Your task to perform on an android device: Go to internet settings Image 0: 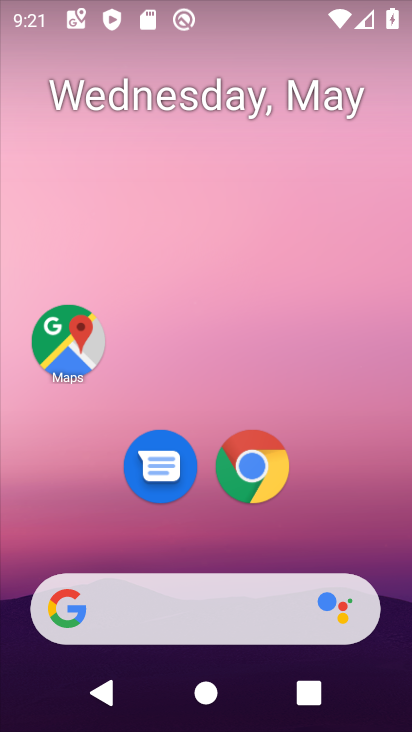
Step 0: drag from (254, 657) to (210, 19)
Your task to perform on an android device: Go to internet settings Image 1: 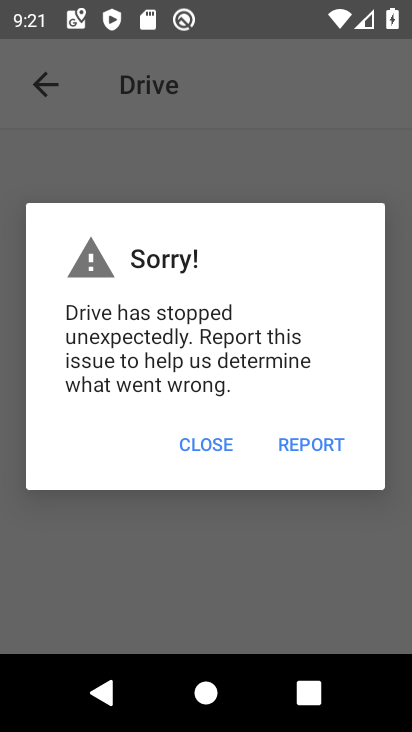
Step 1: click (208, 444)
Your task to perform on an android device: Go to internet settings Image 2: 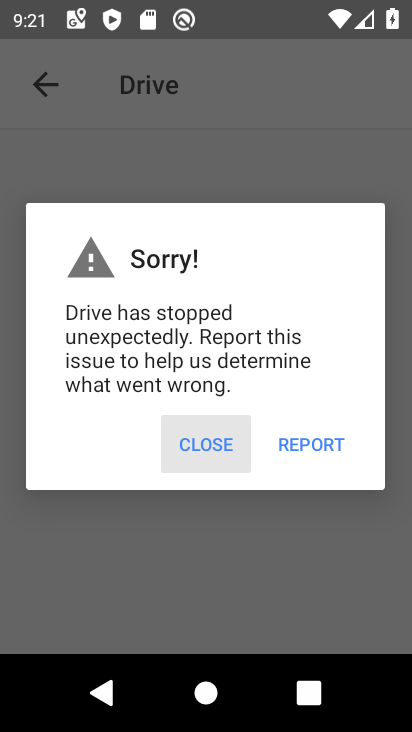
Step 2: click (208, 444)
Your task to perform on an android device: Go to internet settings Image 3: 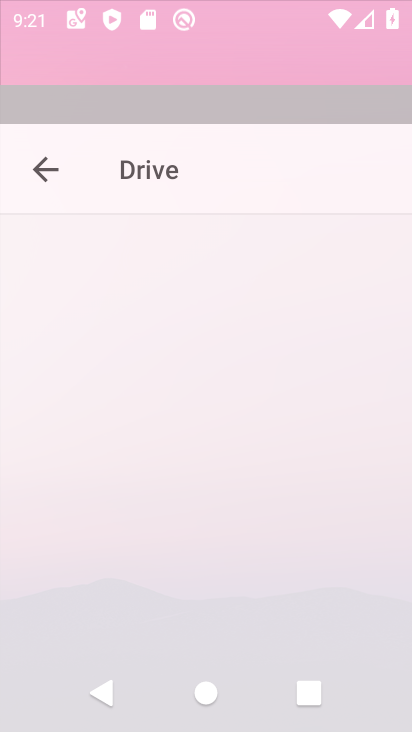
Step 3: click (208, 444)
Your task to perform on an android device: Go to internet settings Image 4: 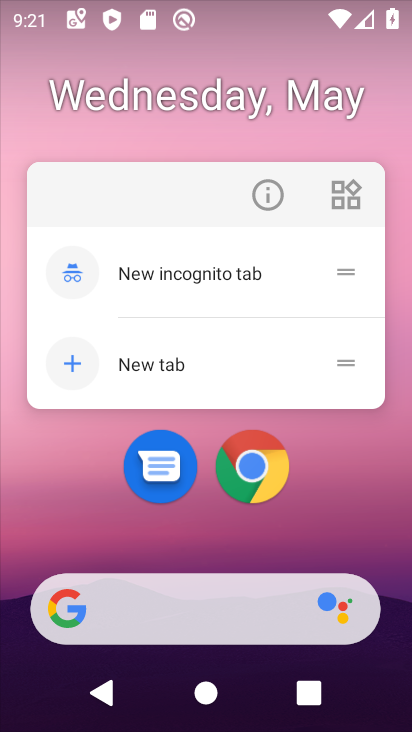
Step 4: drag from (220, 629) to (167, 45)
Your task to perform on an android device: Go to internet settings Image 5: 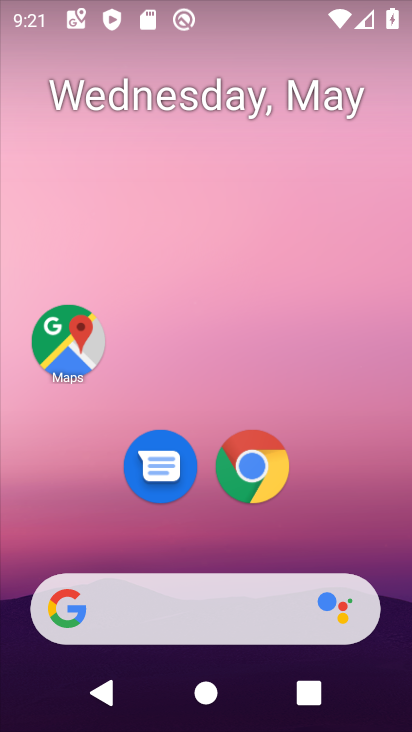
Step 5: drag from (234, 584) to (197, 155)
Your task to perform on an android device: Go to internet settings Image 6: 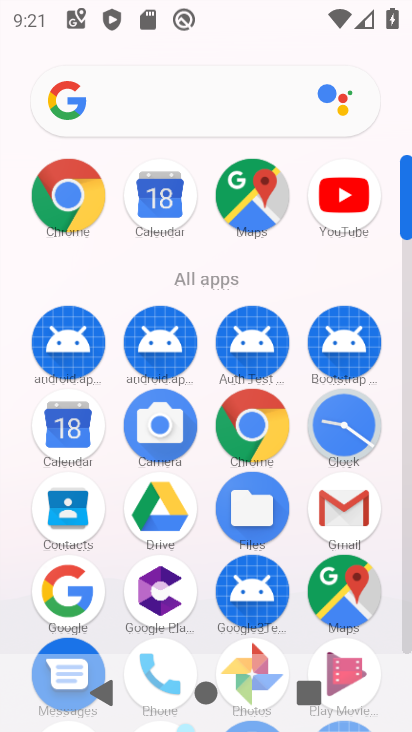
Step 6: drag from (223, 453) to (210, 134)
Your task to perform on an android device: Go to internet settings Image 7: 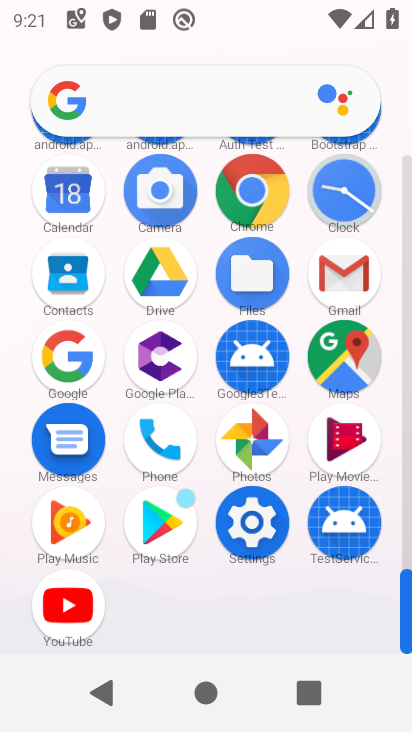
Step 7: drag from (211, 351) to (206, 59)
Your task to perform on an android device: Go to internet settings Image 8: 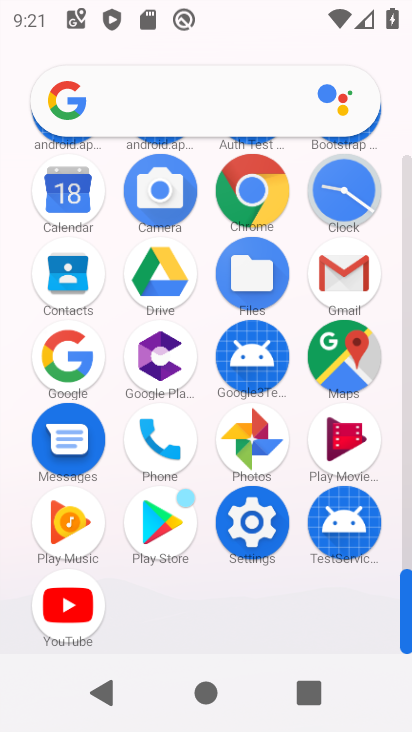
Step 8: drag from (184, 298) to (184, 102)
Your task to perform on an android device: Go to internet settings Image 9: 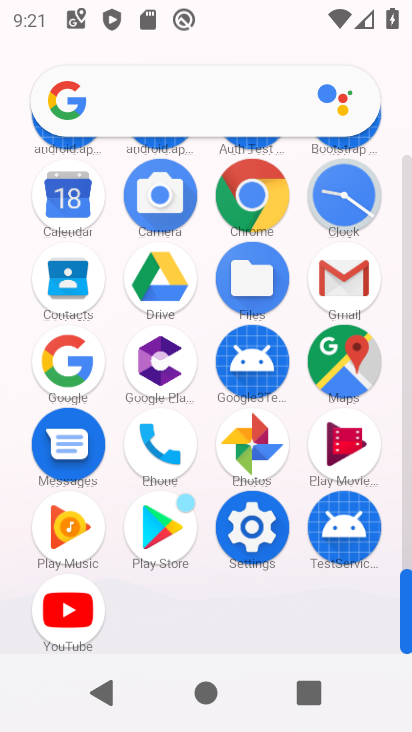
Step 9: click (246, 546)
Your task to perform on an android device: Go to internet settings Image 10: 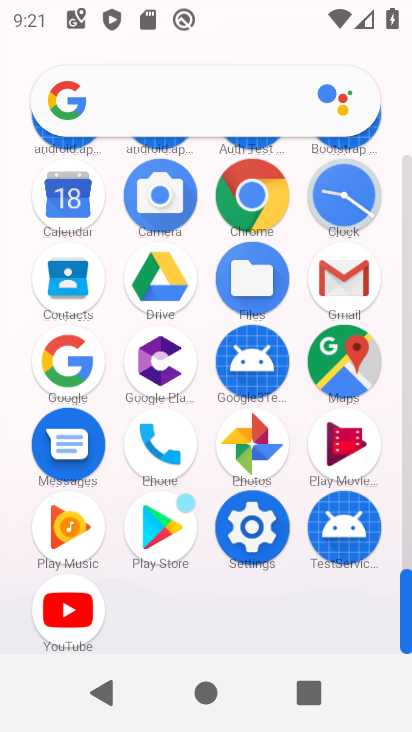
Step 10: click (245, 547)
Your task to perform on an android device: Go to internet settings Image 11: 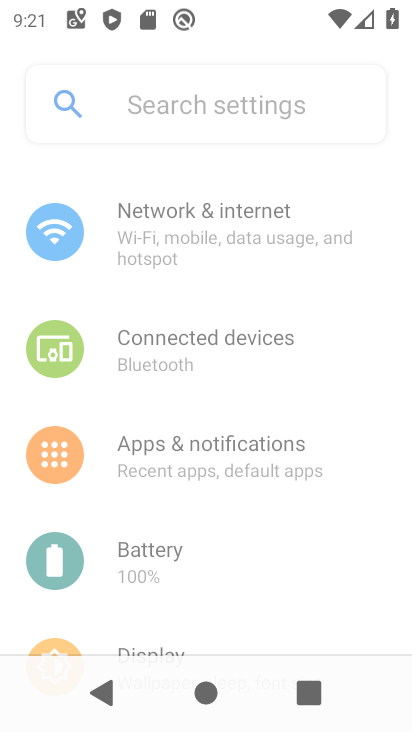
Step 11: click (270, 547)
Your task to perform on an android device: Go to internet settings Image 12: 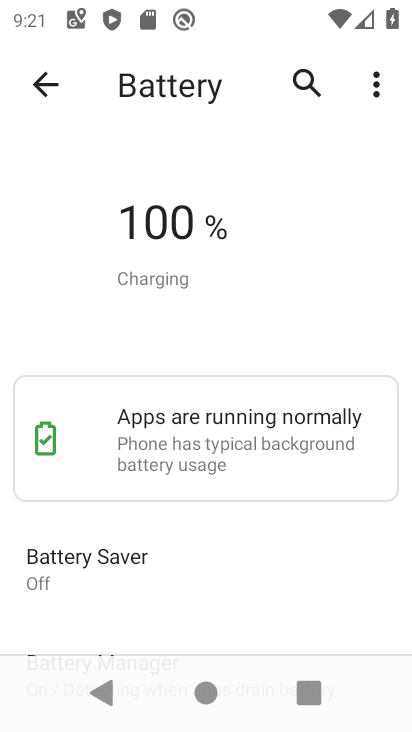
Step 12: click (45, 77)
Your task to perform on an android device: Go to internet settings Image 13: 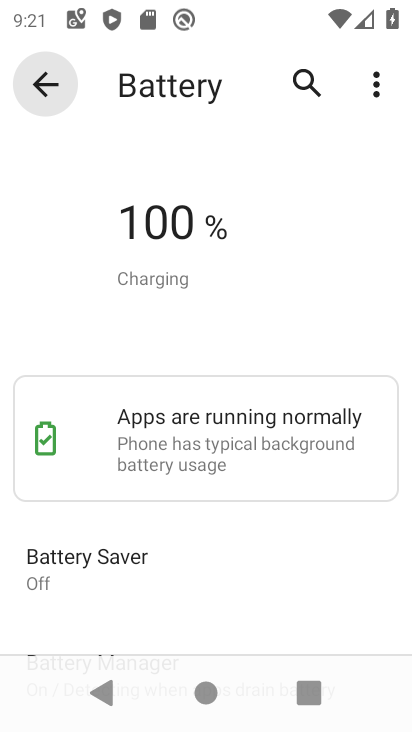
Step 13: click (43, 77)
Your task to perform on an android device: Go to internet settings Image 14: 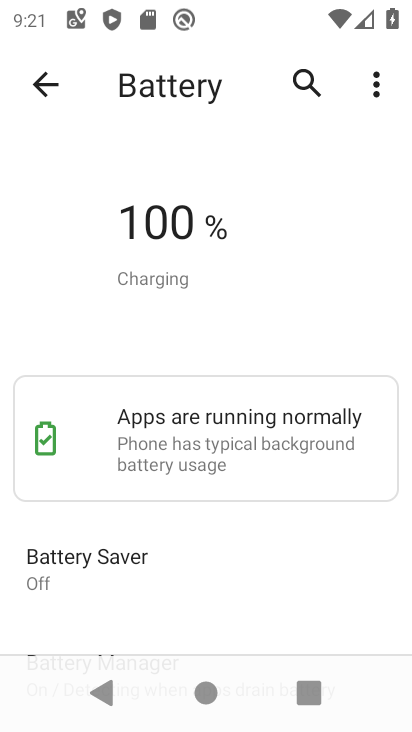
Step 14: click (43, 77)
Your task to perform on an android device: Go to internet settings Image 15: 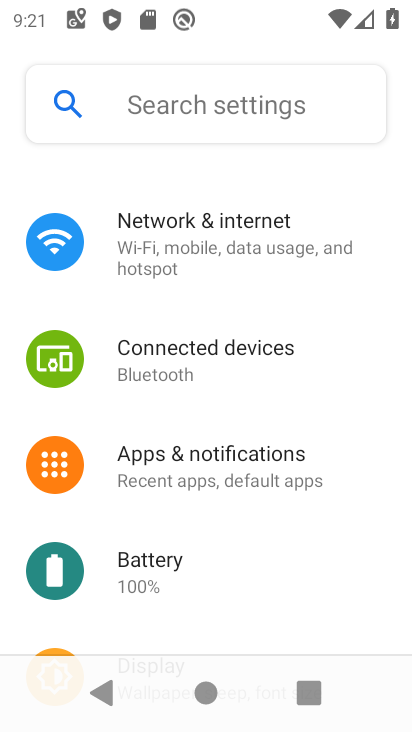
Step 15: click (47, 77)
Your task to perform on an android device: Go to internet settings Image 16: 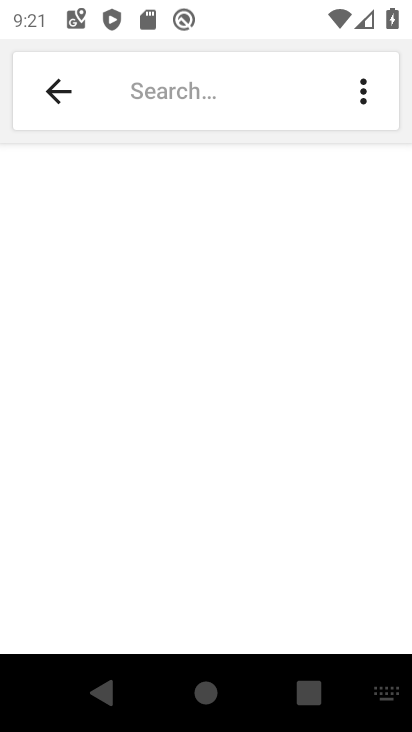
Step 16: click (54, 92)
Your task to perform on an android device: Go to internet settings Image 17: 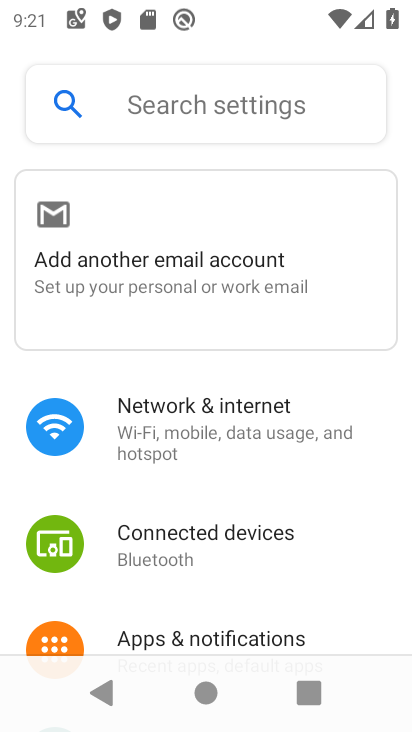
Step 17: click (175, 425)
Your task to perform on an android device: Go to internet settings Image 18: 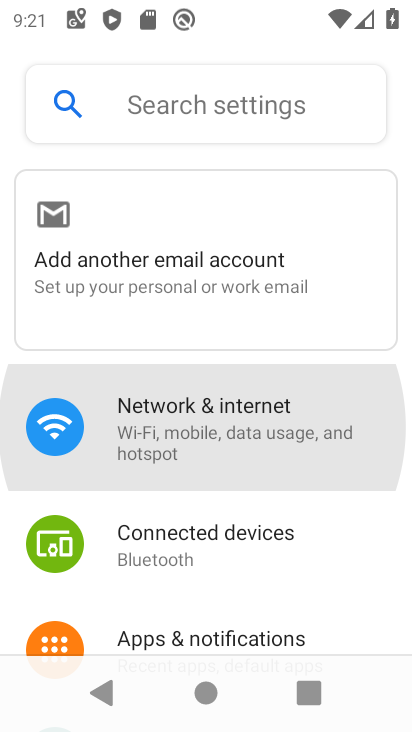
Step 18: click (175, 425)
Your task to perform on an android device: Go to internet settings Image 19: 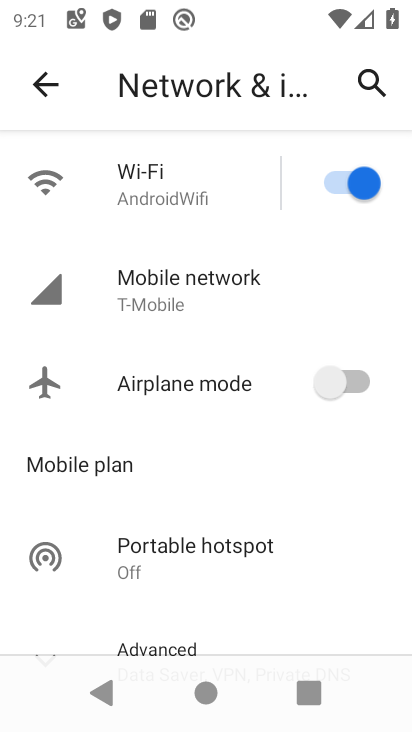
Step 19: click (155, 290)
Your task to perform on an android device: Go to internet settings Image 20: 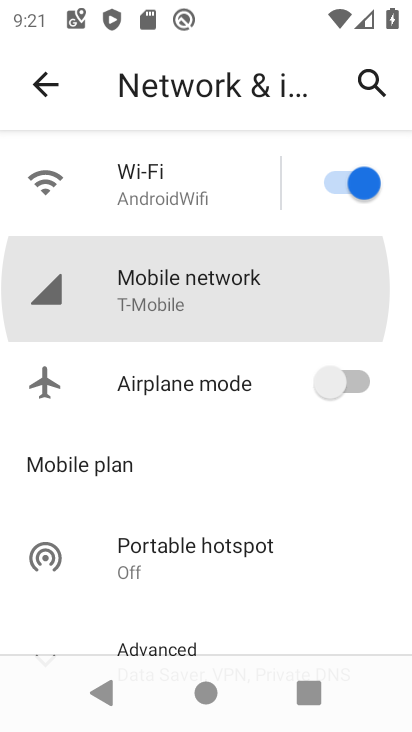
Step 20: click (155, 290)
Your task to perform on an android device: Go to internet settings Image 21: 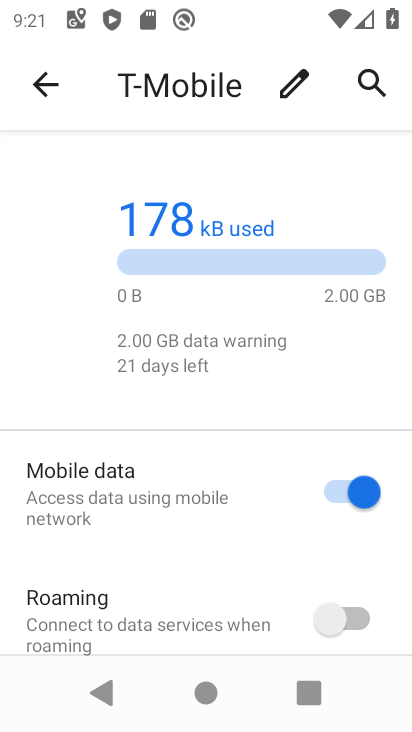
Step 21: click (37, 87)
Your task to perform on an android device: Go to internet settings Image 22: 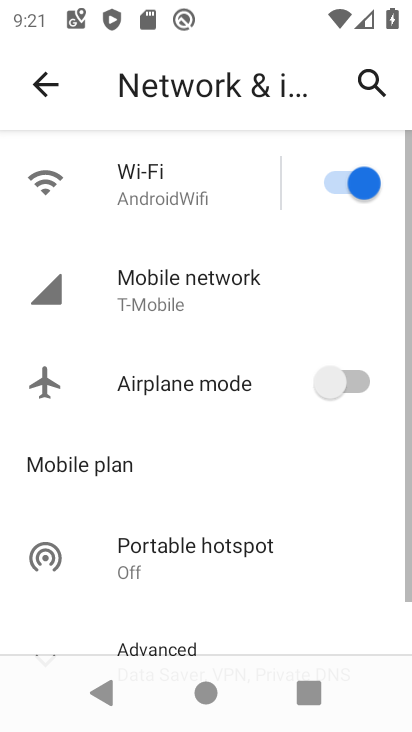
Step 22: task complete